Your task to perform on an android device: open wifi settings Image 0: 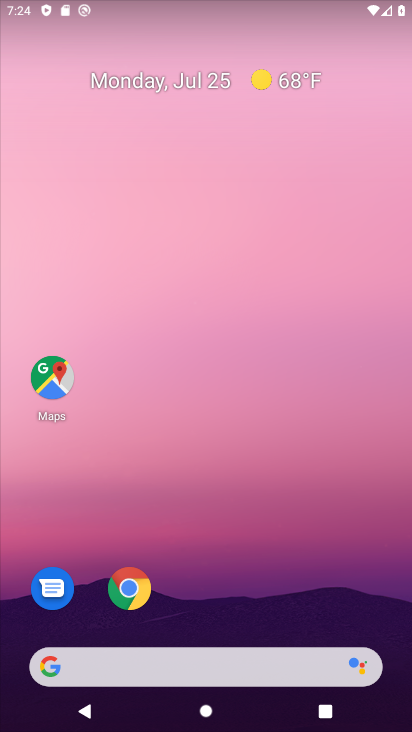
Step 0: drag from (351, 548) to (374, 80)
Your task to perform on an android device: open wifi settings Image 1: 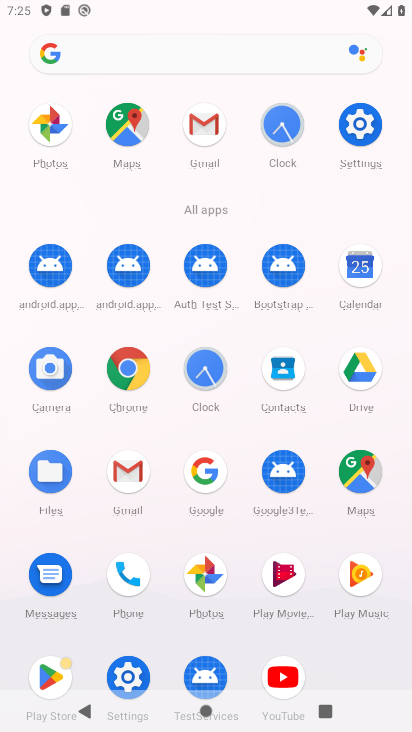
Step 1: click (359, 129)
Your task to perform on an android device: open wifi settings Image 2: 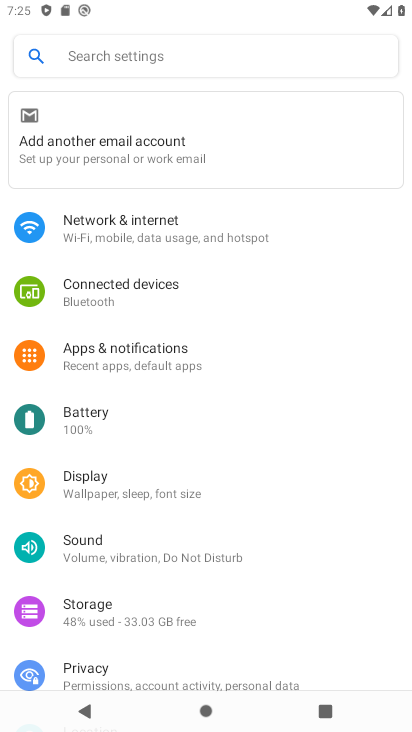
Step 2: click (281, 229)
Your task to perform on an android device: open wifi settings Image 3: 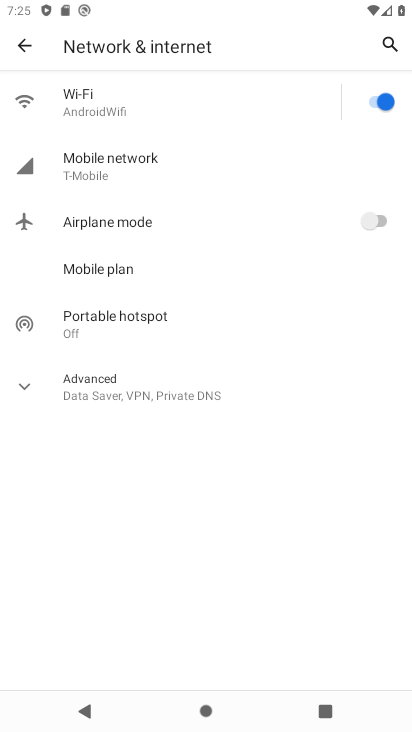
Step 3: click (108, 100)
Your task to perform on an android device: open wifi settings Image 4: 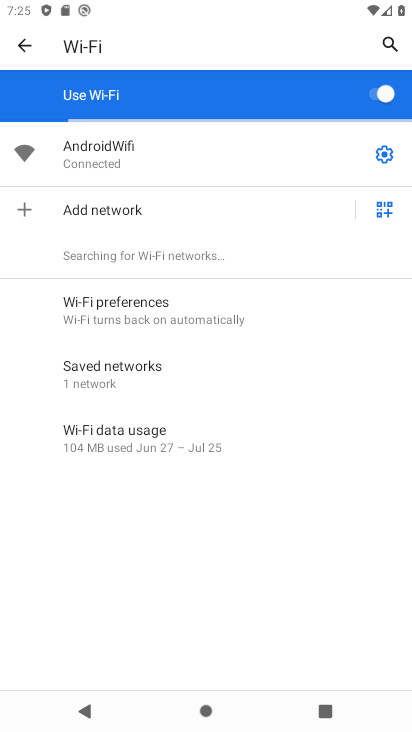
Step 4: task complete